Your task to perform on an android device: toggle priority inbox in the gmail app Image 0: 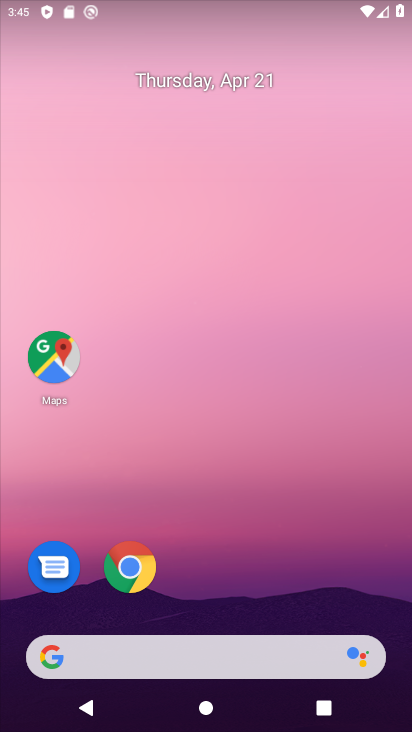
Step 0: drag from (218, 630) to (173, 236)
Your task to perform on an android device: toggle priority inbox in the gmail app Image 1: 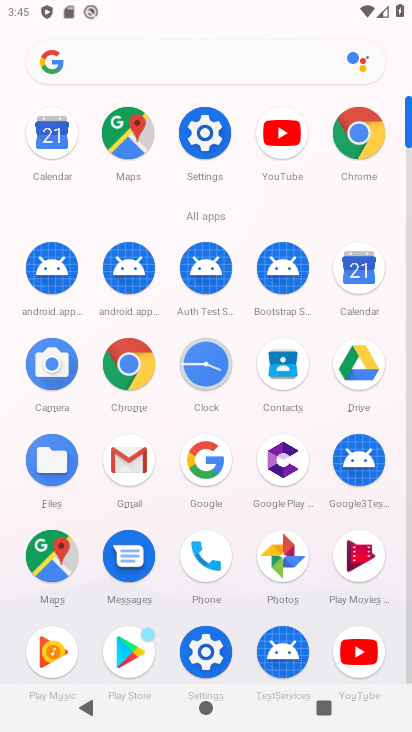
Step 1: click (127, 457)
Your task to perform on an android device: toggle priority inbox in the gmail app Image 2: 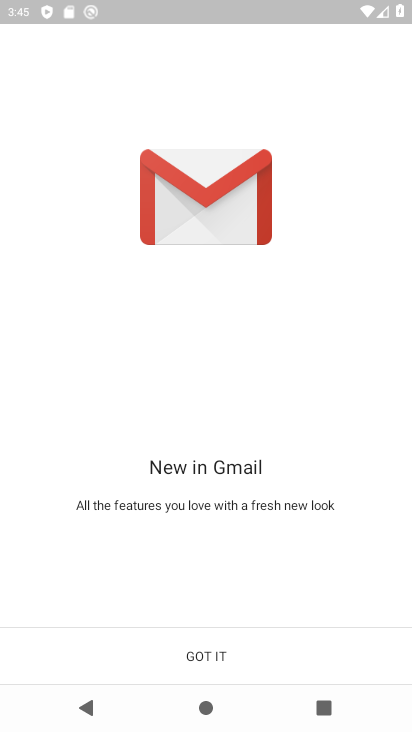
Step 2: click (142, 648)
Your task to perform on an android device: toggle priority inbox in the gmail app Image 3: 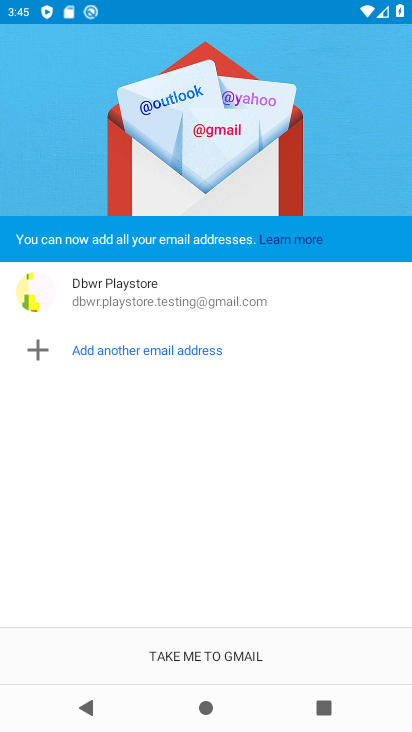
Step 3: click (149, 655)
Your task to perform on an android device: toggle priority inbox in the gmail app Image 4: 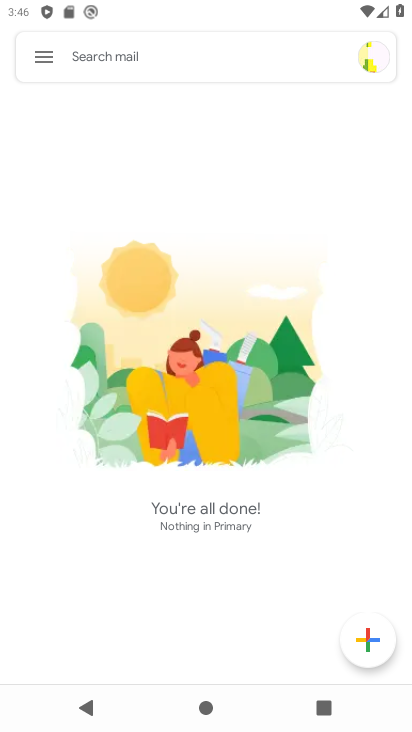
Step 4: click (33, 52)
Your task to perform on an android device: toggle priority inbox in the gmail app Image 5: 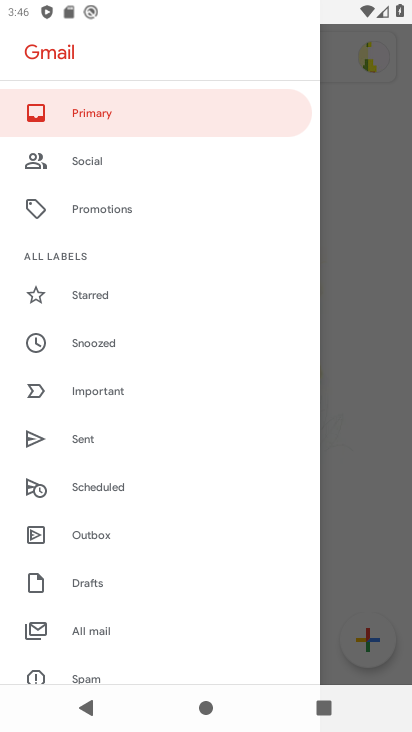
Step 5: drag from (179, 658) to (189, 186)
Your task to perform on an android device: toggle priority inbox in the gmail app Image 6: 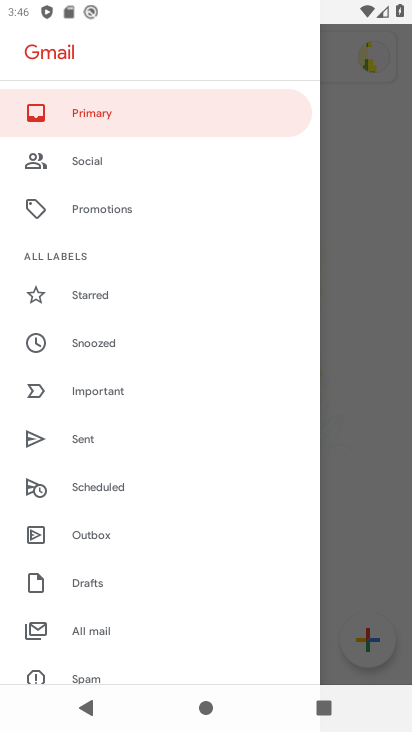
Step 6: drag from (110, 635) to (138, 227)
Your task to perform on an android device: toggle priority inbox in the gmail app Image 7: 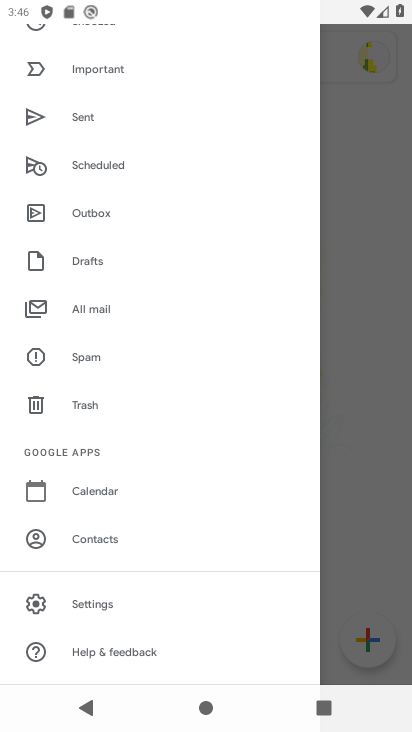
Step 7: drag from (121, 649) to (221, 56)
Your task to perform on an android device: toggle priority inbox in the gmail app Image 8: 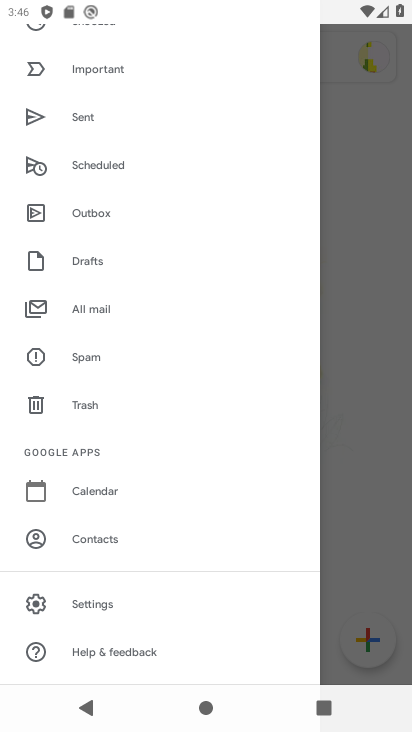
Step 8: click (130, 597)
Your task to perform on an android device: toggle priority inbox in the gmail app Image 9: 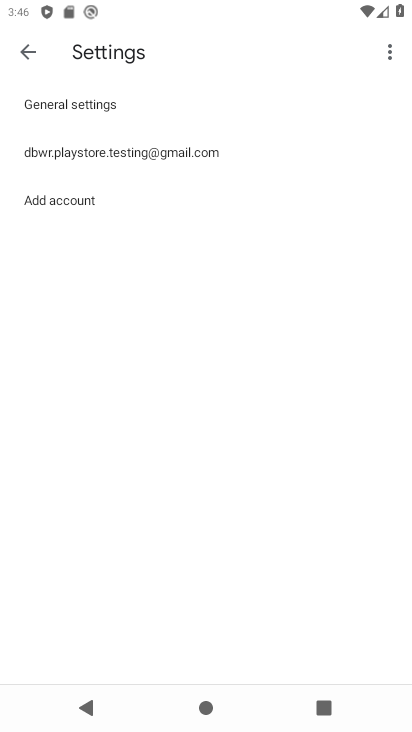
Step 9: click (118, 145)
Your task to perform on an android device: toggle priority inbox in the gmail app Image 10: 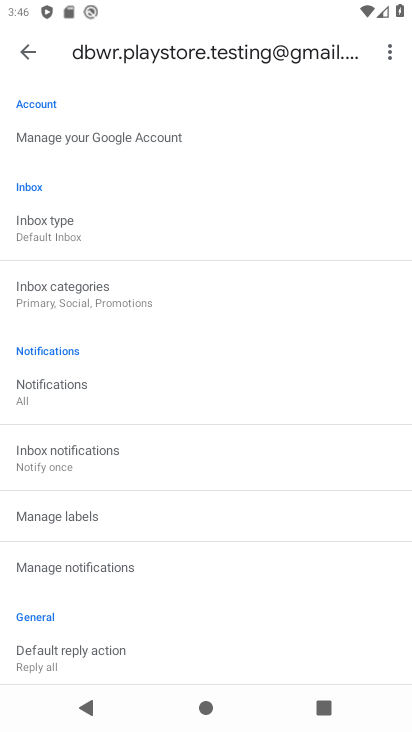
Step 10: click (91, 230)
Your task to perform on an android device: toggle priority inbox in the gmail app Image 11: 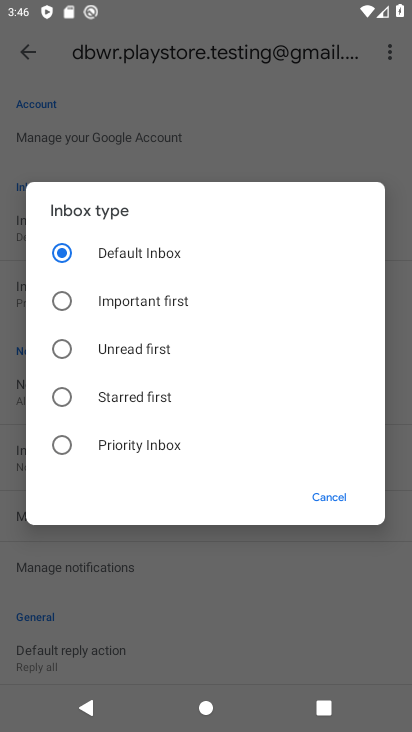
Step 11: click (61, 440)
Your task to perform on an android device: toggle priority inbox in the gmail app Image 12: 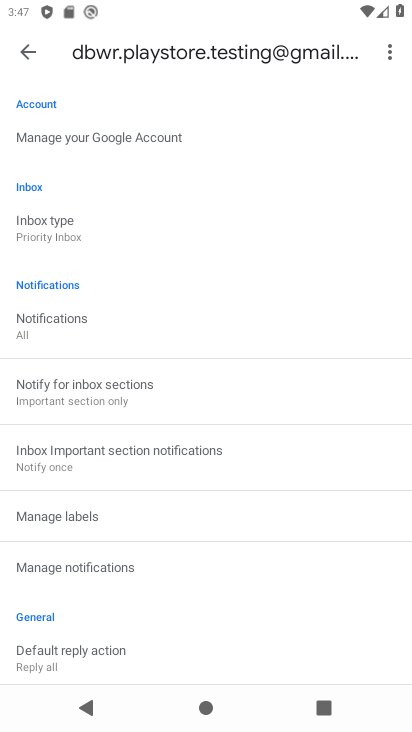
Step 12: task complete